Your task to perform on an android device: Open maps Image 0: 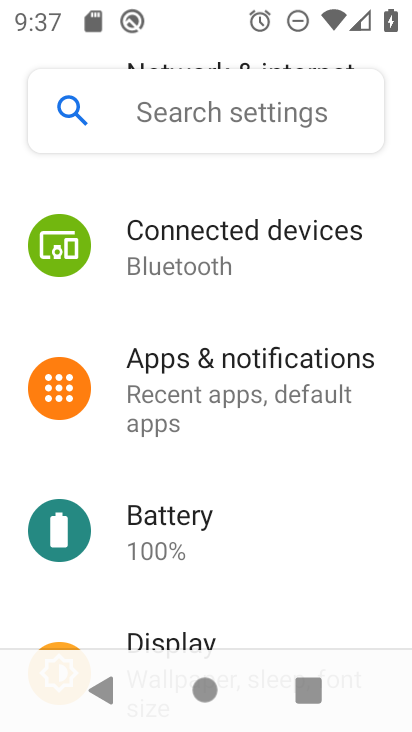
Step 0: press home button
Your task to perform on an android device: Open maps Image 1: 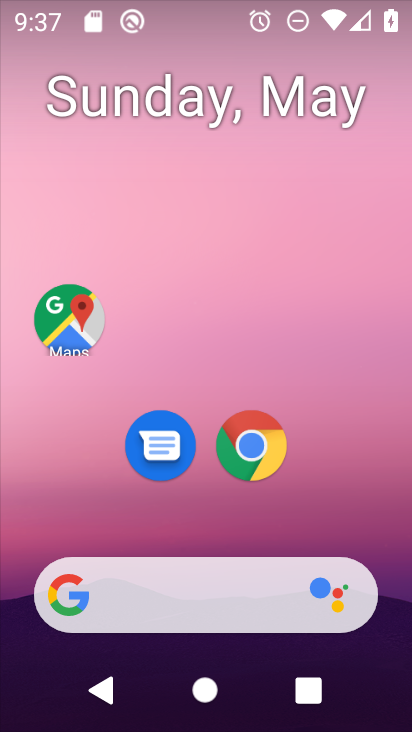
Step 1: drag from (187, 558) to (192, 148)
Your task to perform on an android device: Open maps Image 2: 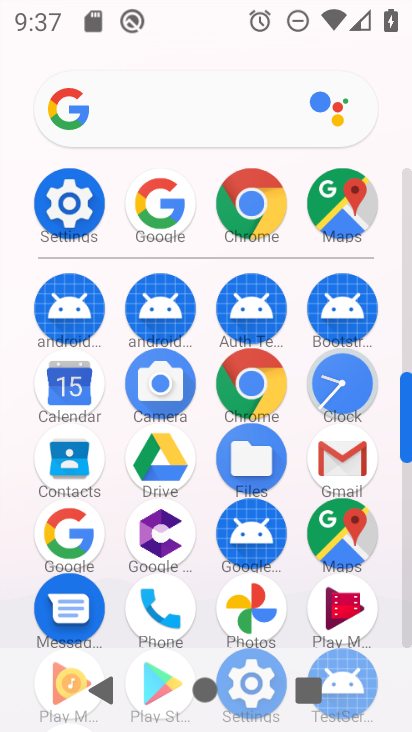
Step 2: click (351, 541)
Your task to perform on an android device: Open maps Image 3: 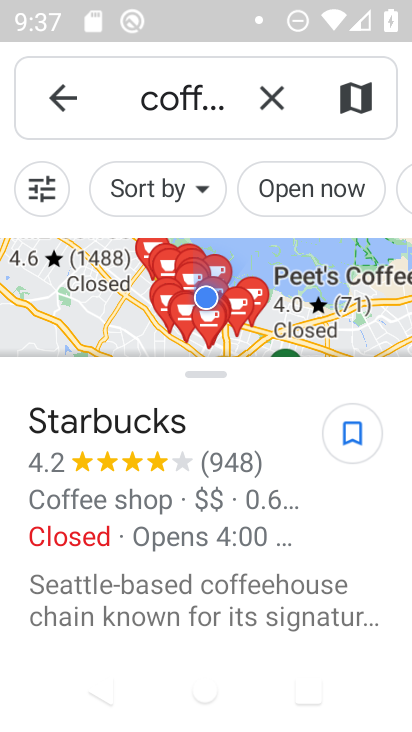
Step 3: task complete